Your task to perform on an android device: Play the latest video from the Washington Post Image 0: 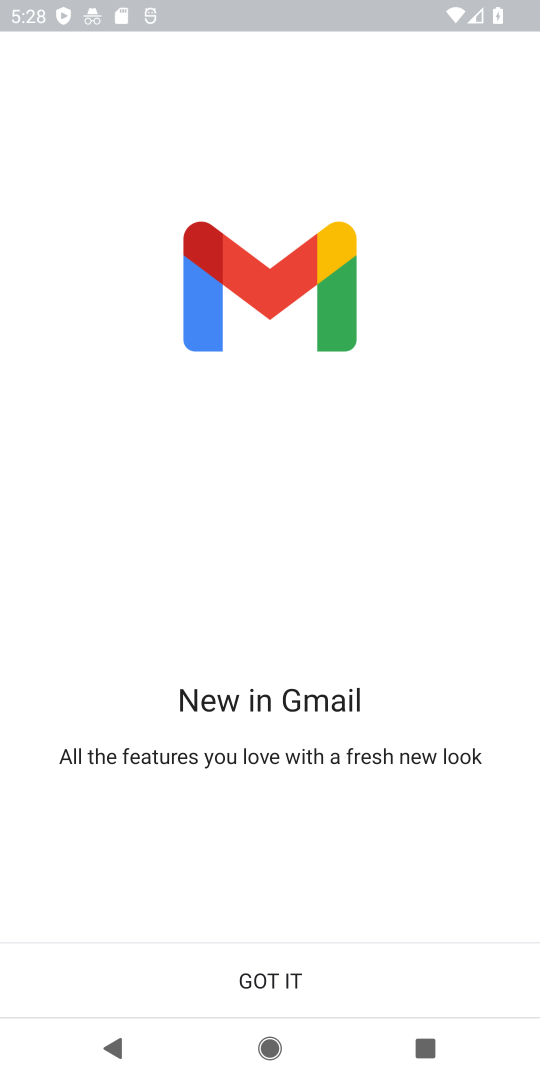
Step 0: press home button
Your task to perform on an android device: Play the latest video from the Washington Post Image 1: 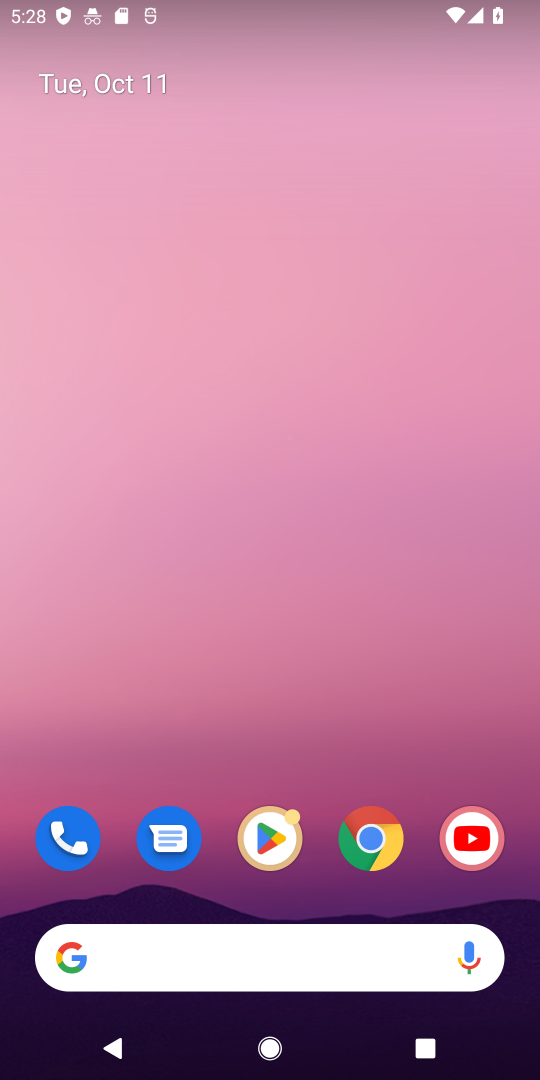
Step 1: click (376, 839)
Your task to perform on an android device: Play the latest video from the Washington Post Image 2: 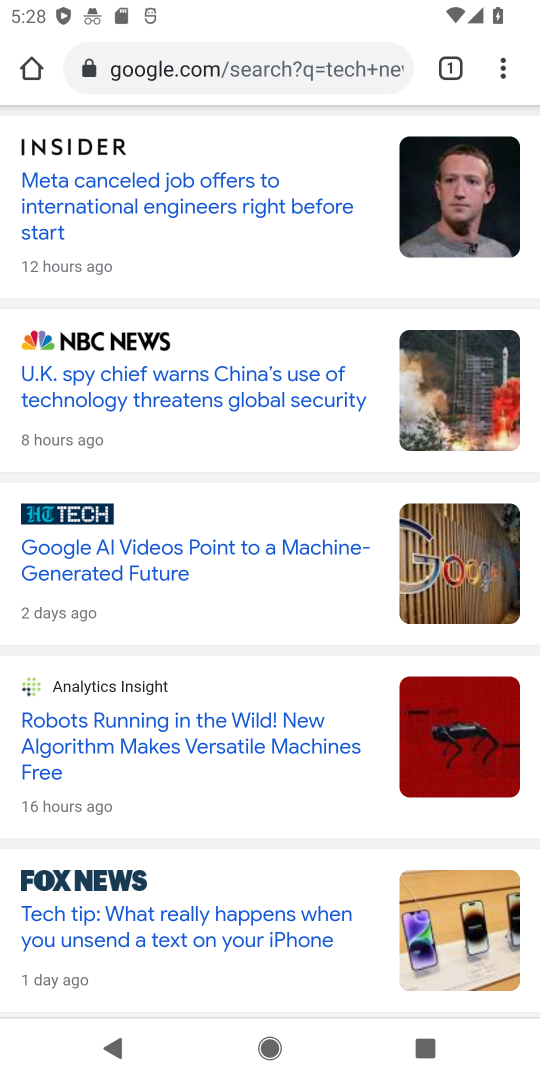
Step 2: click (368, 71)
Your task to perform on an android device: Play the latest video from the Washington Post Image 3: 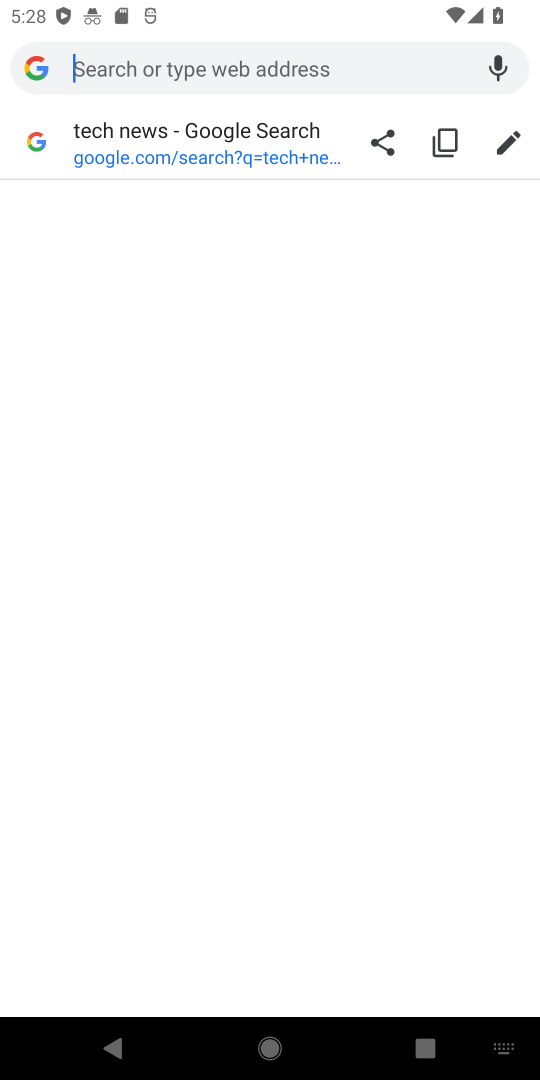
Step 3: type "latest video from the Washington Post"
Your task to perform on an android device: Play the latest video from the Washington Post Image 4: 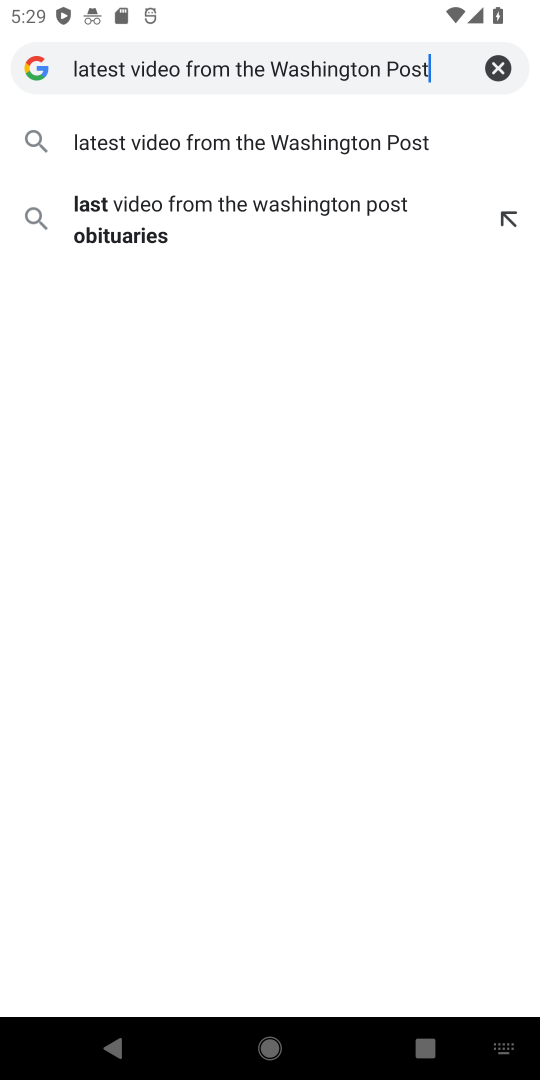
Step 4: click (214, 145)
Your task to perform on an android device: Play the latest video from the Washington Post Image 5: 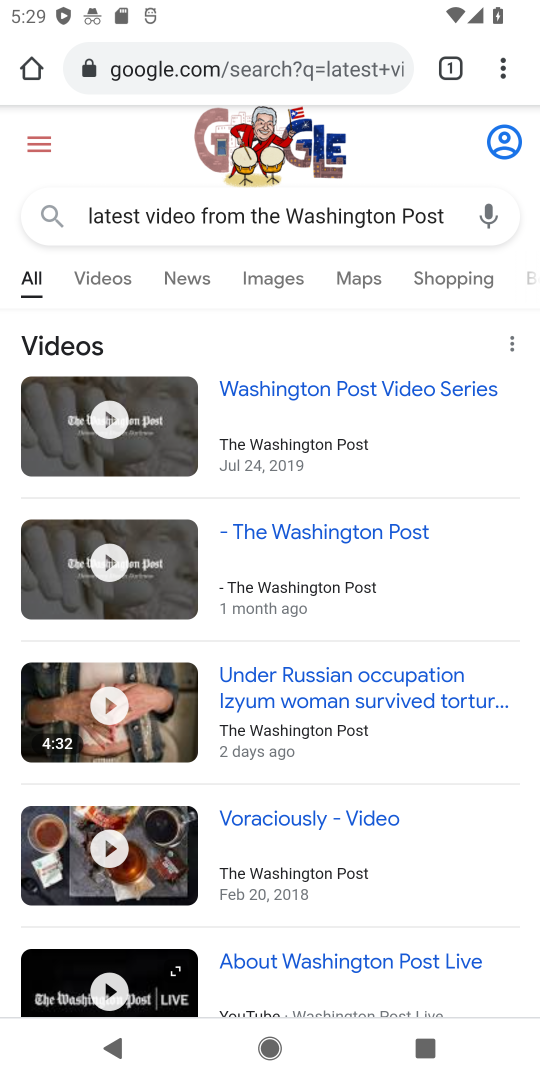
Step 5: drag from (331, 499) to (228, 445)
Your task to perform on an android device: Play the latest video from the Washington Post Image 6: 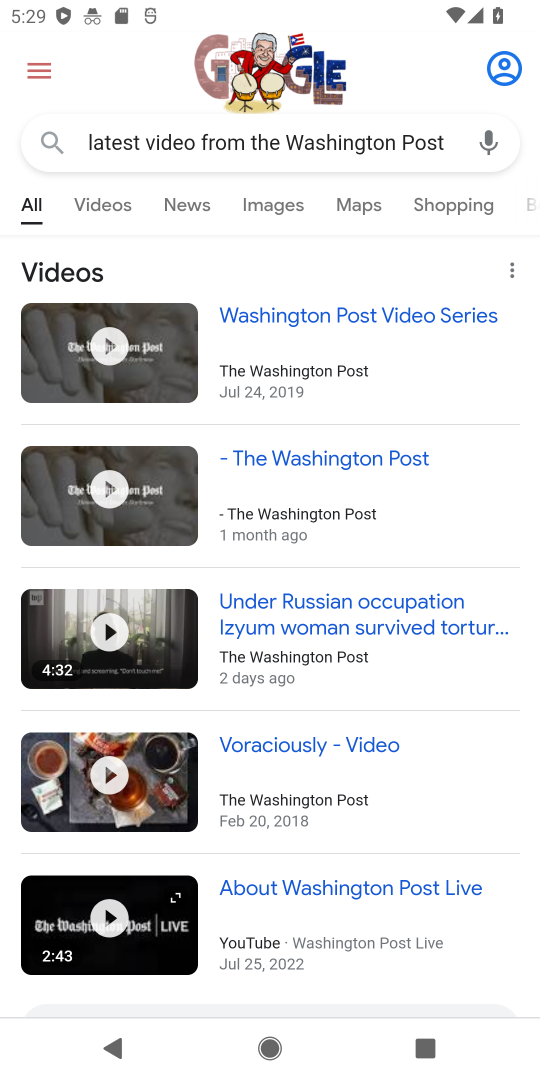
Step 6: click (91, 239)
Your task to perform on an android device: Play the latest video from the Washington Post Image 7: 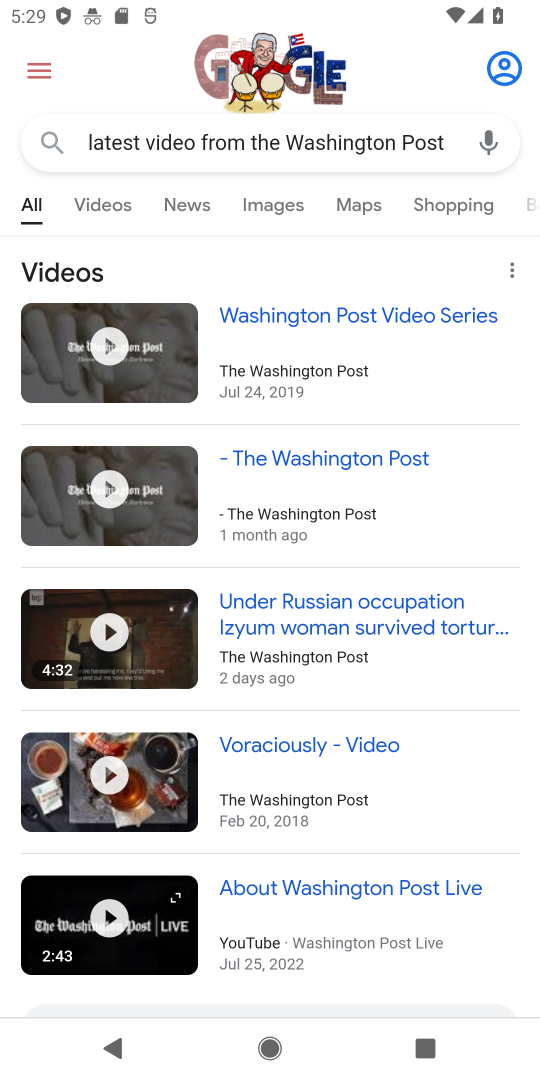
Step 7: click (106, 203)
Your task to perform on an android device: Play the latest video from the Washington Post Image 8: 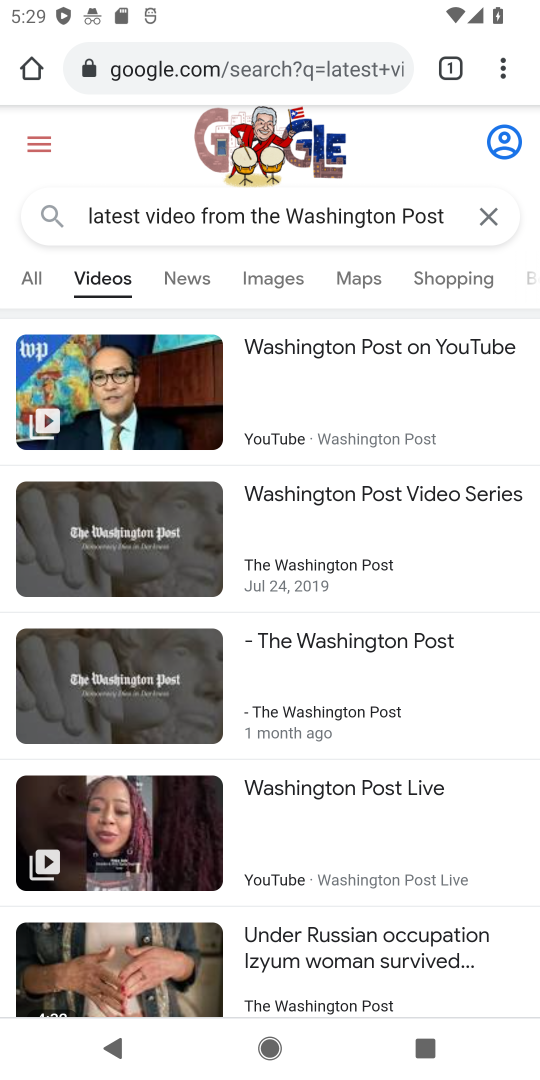
Step 8: click (115, 404)
Your task to perform on an android device: Play the latest video from the Washington Post Image 9: 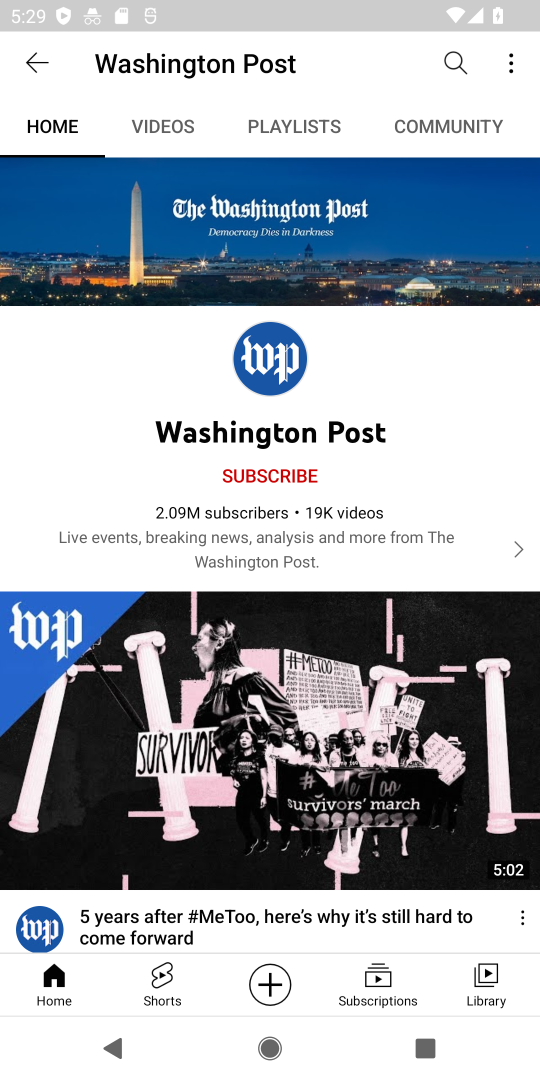
Step 9: click (173, 130)
Your task to perform on an android device: Play the latest video from the Washington Post Image 10: 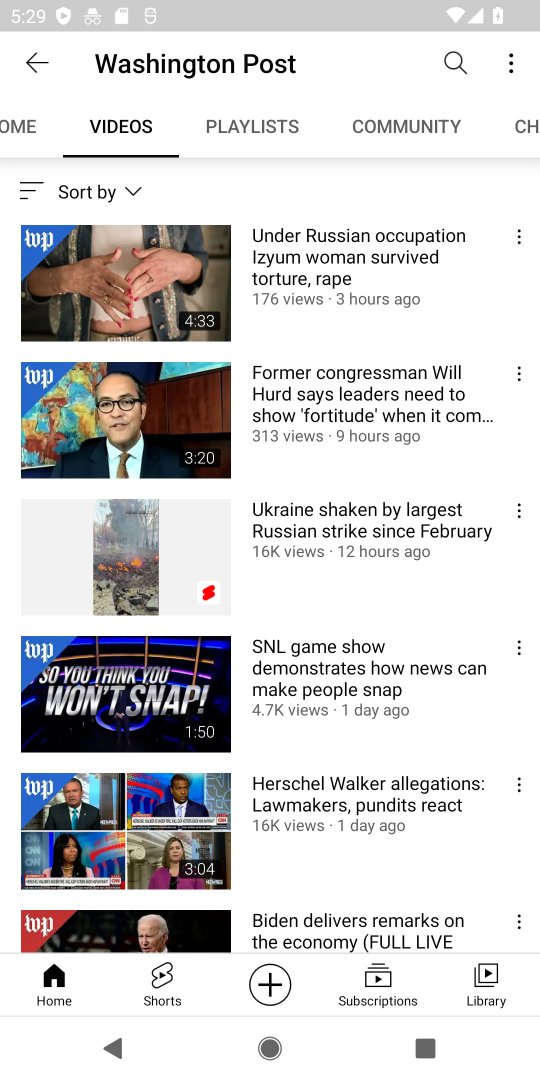
Step 10: click (134, 276)
Your task to perform on an android device: Play the latest video from the Washington Post Image 11: 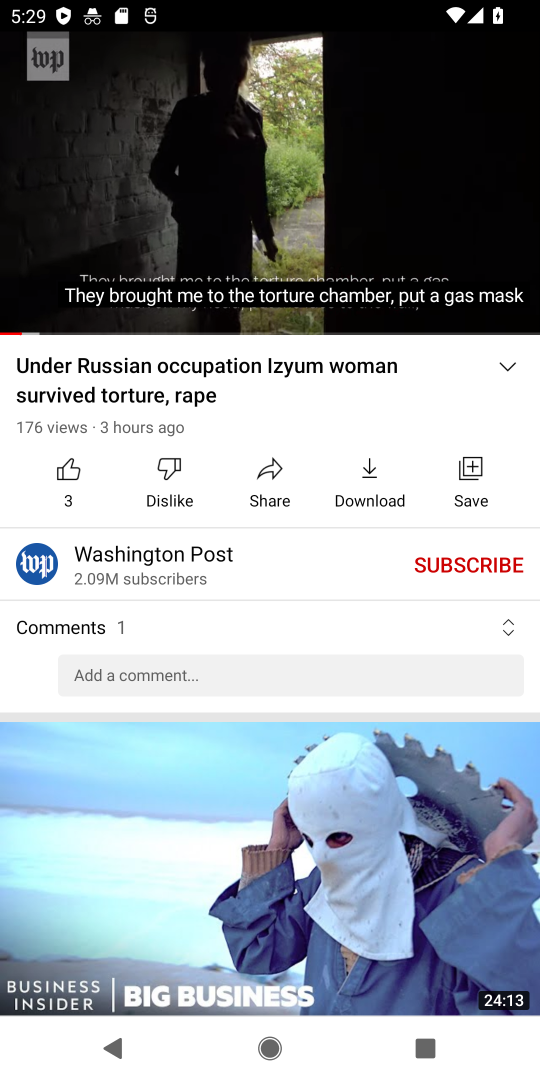
Step 11: click (221, 233)
Your task to perform on an android device: Play the latest video from the Washington Post Image 12: 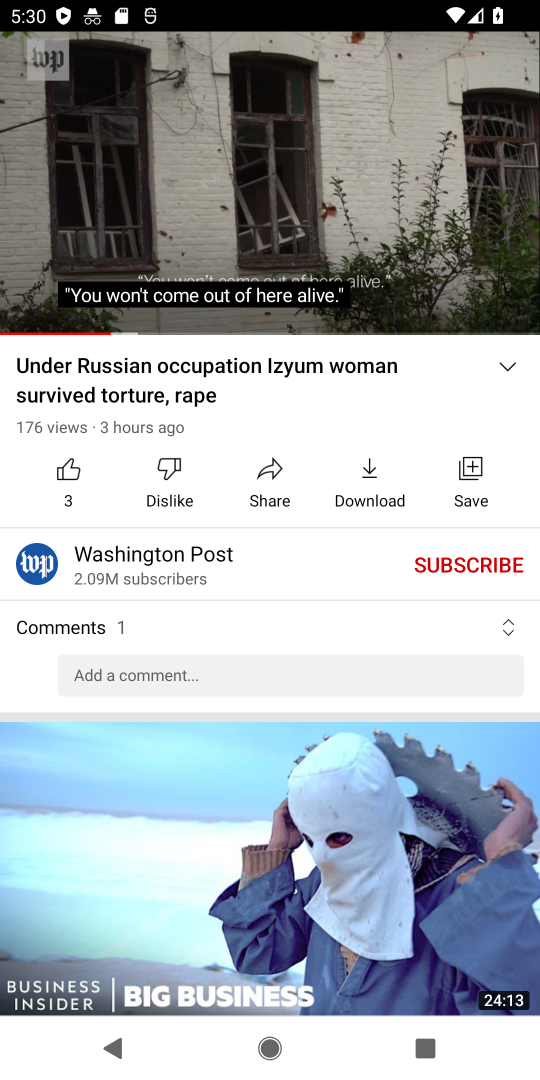
Step 12: task complete